Your task to perform on an android device: Open Google Chrome and open the bookmarks view Image 0: 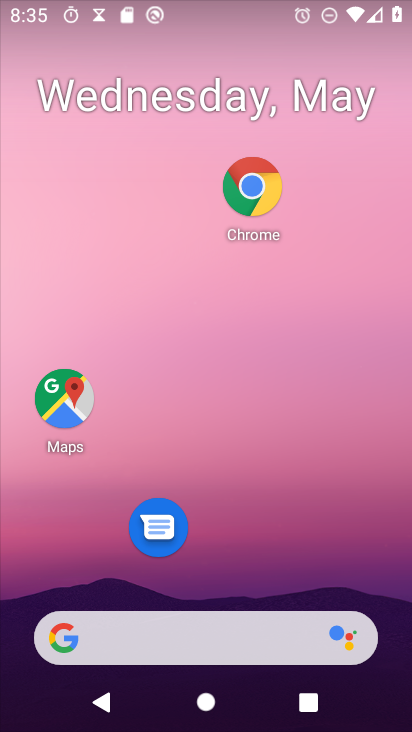
Step 0: press home button
Your task to perform on an android device: Open Google Chrome and open the bookmarks view Image 1: 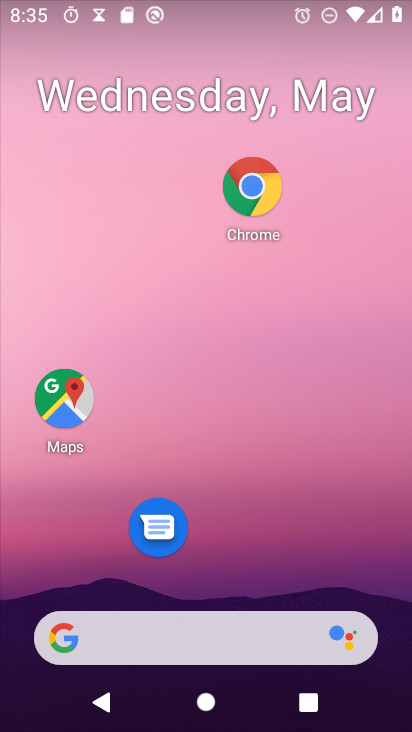
Step 1: click (247, 199)
Your task to perform on an android device: Open Google Chrome and open the bookmarks view Image 2: 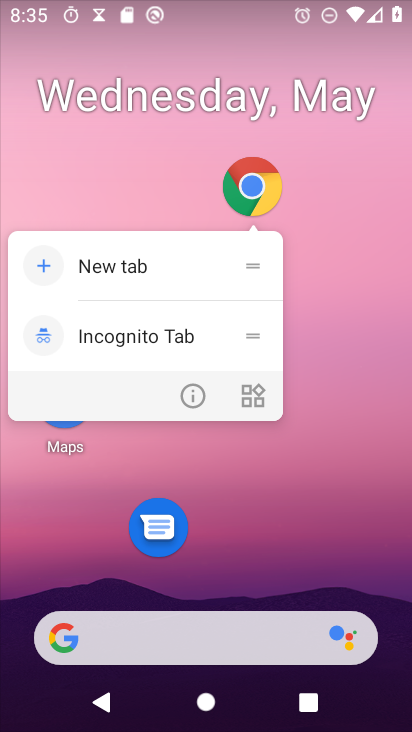
Step 2: click (334, 583)
Your task to perform on an android device: Open Google Chrome and open the bookmarks view Image 3: 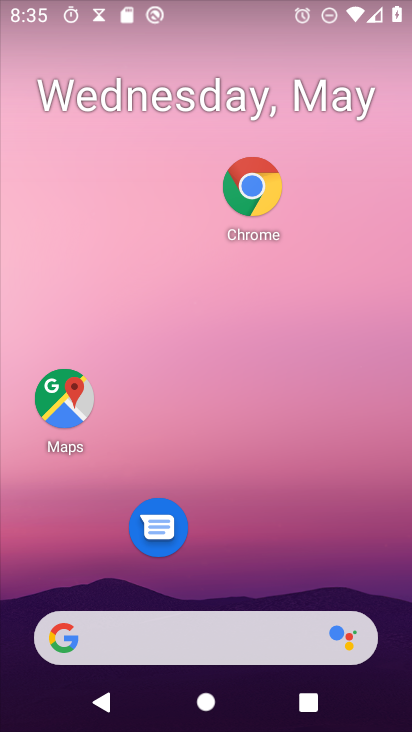
Step 3: drag from (340, 572) to (348, 20)
Your task to perform on an android device: Open Google Chrome and open the bookmarks view Image 4: 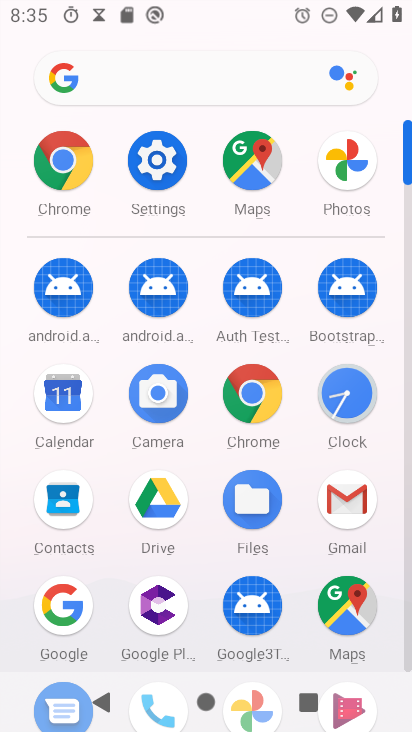
Step 4: click (59, 167)
Your task to perform on an android device: Open Google Chrome and open the bookmarks view Image 5: 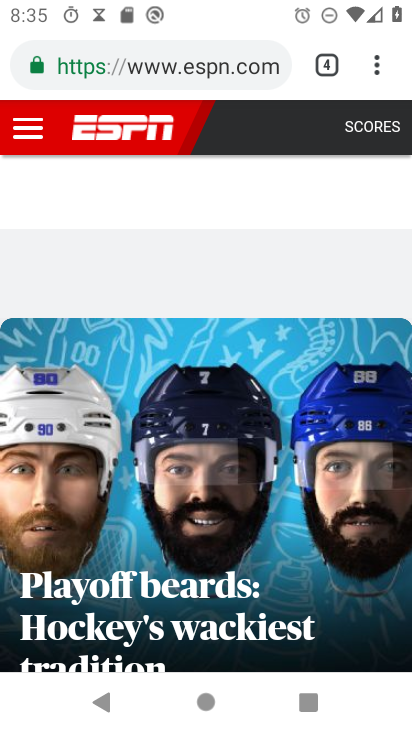
Step 5: task complete